Your task to perform on an android device: Show me productivity apps on the Play Store Image 0: 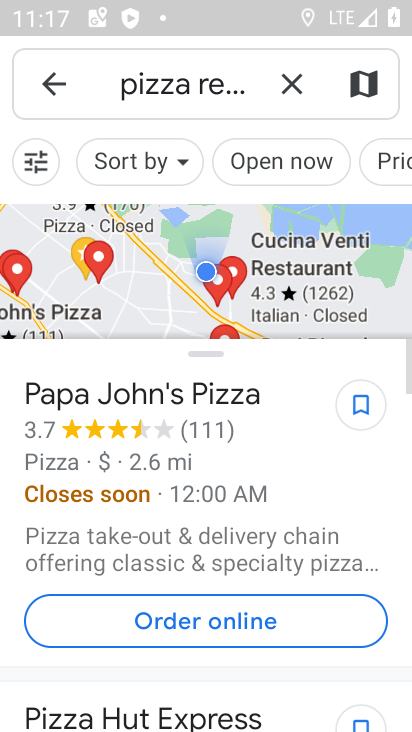
Step 0: press home button
Your task to perform on an android device: Show me productivity apps on the Play Store Image 1: 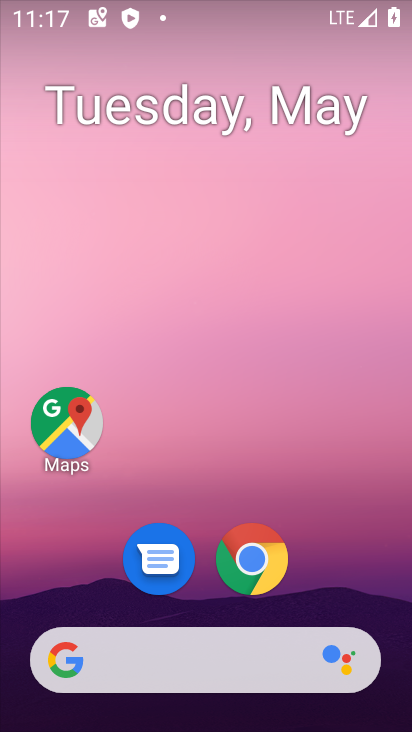
Step 1: drag from (387, 579) to (323, 140)
Your task to perform on an android device: Show me productivity apps on the Play Store Image 2: 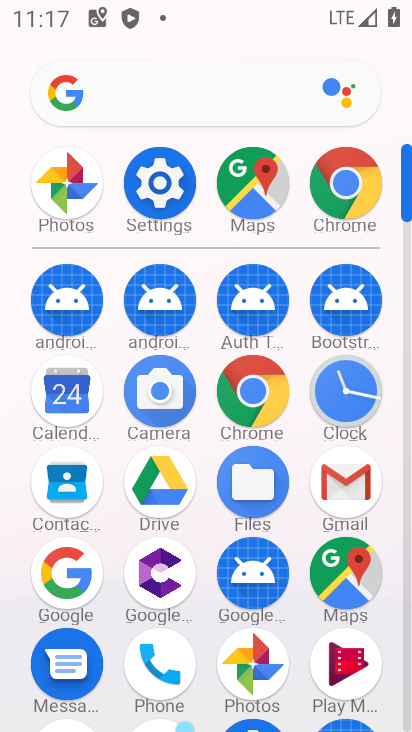
Step 2: drag from (195, 697) to (222, 442)
Your task to perform on an android device: Show me productivity apps on the Play Store Image 3: 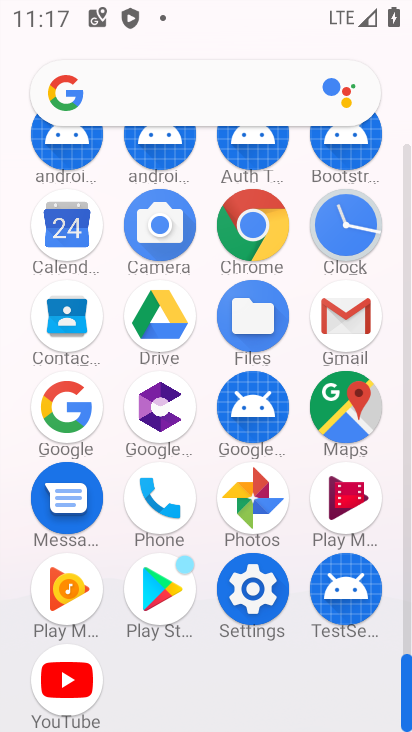
Step 3: click (175, 603)
Your task to perform on an android device: Show me productivity apps on the Play Store Image 4: 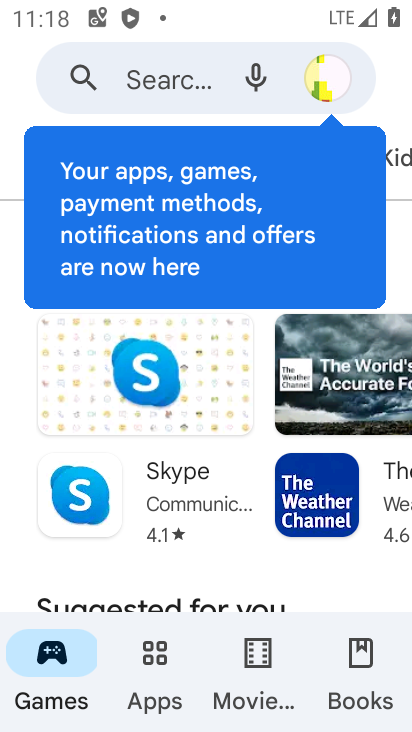
Step 4: click (171, 681)
Your task to perform on an android device: Show me productivity apps on the Play Store Image 5: 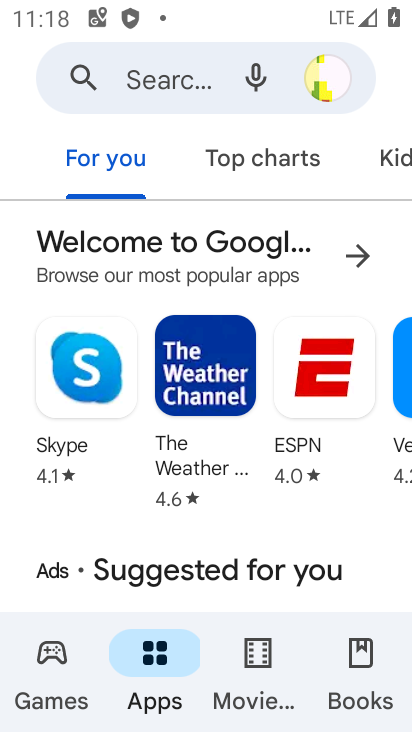
Step 5: drag from (356, 163) to (2, 166)
Your task to perform on an android device: Show me productivity apps on the Play Store Image 6: 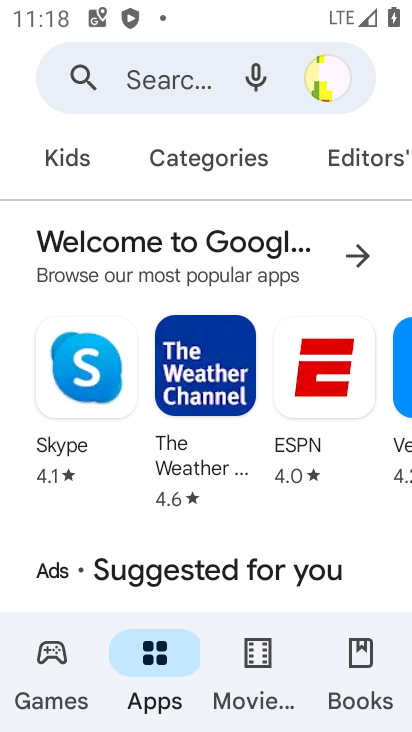
Step 6: click (248, 159)
Your task to perform on an android device: Show me productivity apps on the Play Store Image 7: 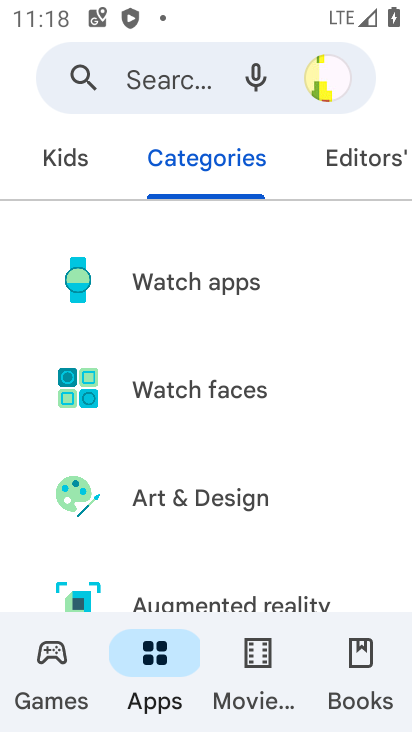
Step 7: drag from (260, 579) to (253, 239)
Your task to perform on an android device: Show me productivity apps on the Play Store Image 8: 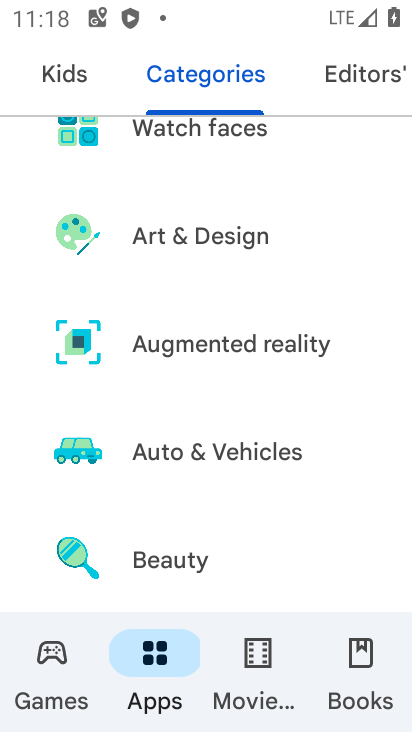
Step 8: drag from (278, 527) to (307, 146)
Your task to perform on an android device: Show me productivity apps on the Play Store Image 9: 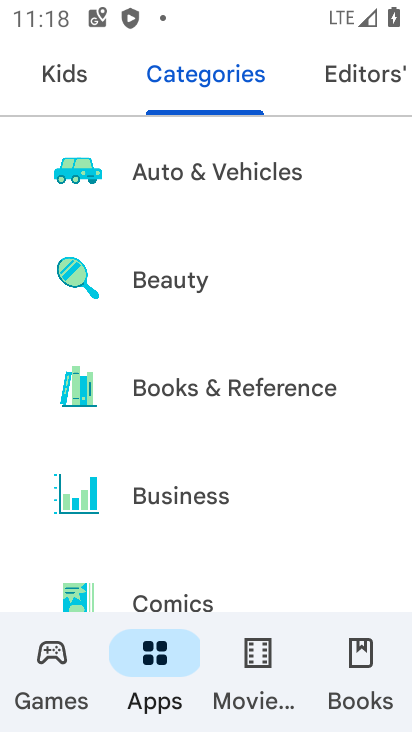
Step 9: drag from (365, 567) to (323, 175)
Your task to perform on an android device: Show me productivity apps on the Play Store Image 10: 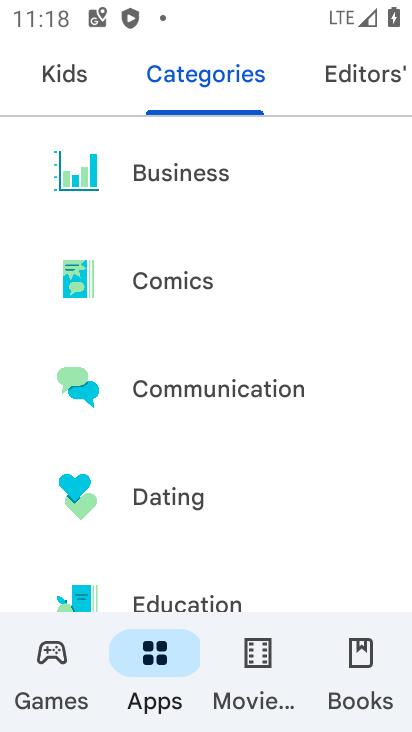
Step 10: drag from (333, 628) to (306, 182)
Your task to perform on an android device: Show me productivity apps on the Play Store Image 11: 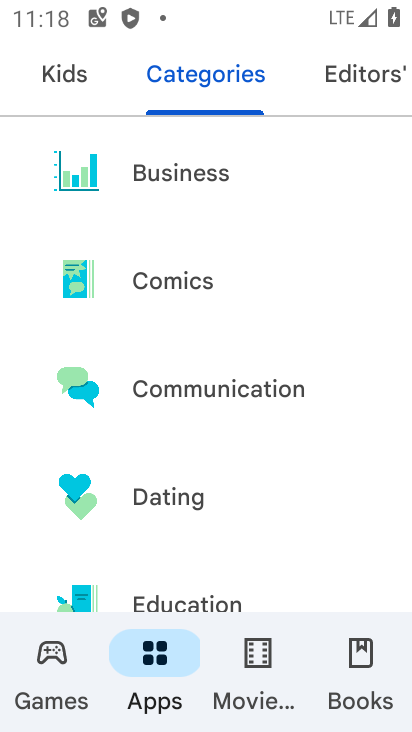
Step 11: drag from (247, 600) to (284, 259)
Your task to perform on an android device: Show me productivity apps on the Play Store Image 12: 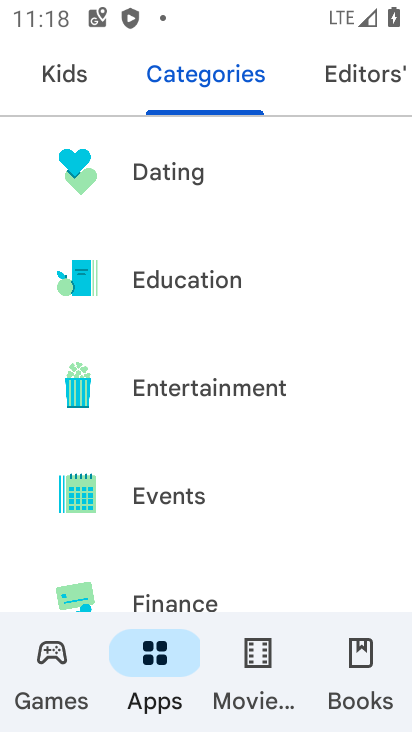
Step 12: drag from (261, 572) to (255, 218)
Your task to perform on an android device: Show me productivity apps on the Play Store Image 13: 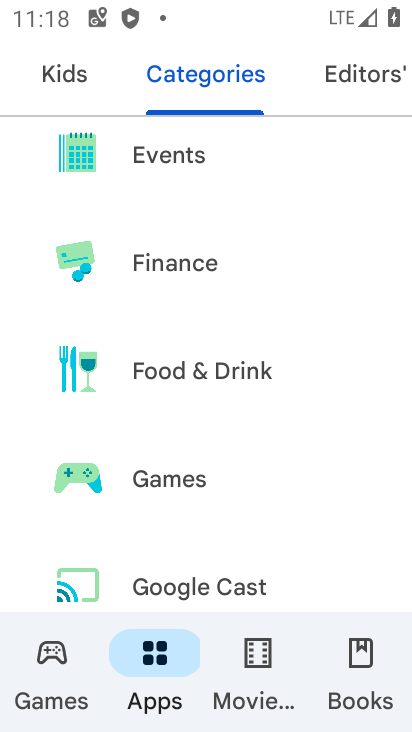
Step 13: drag from (251, 537) to (263, 246)
Your task to perform on an android device: Show me productivity apps on the Play Store Image 14: 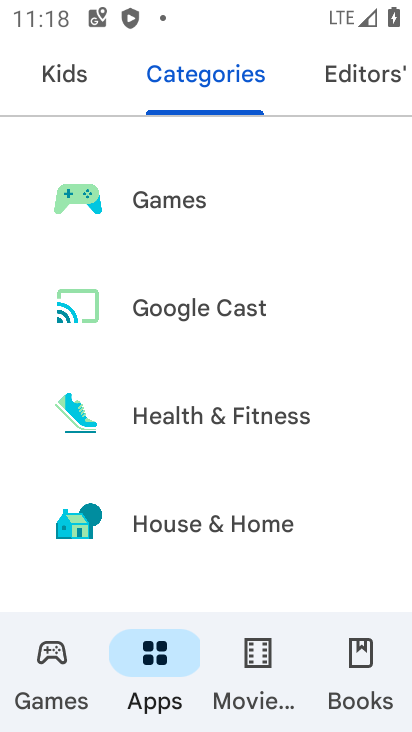
Step 14: drag from (272, 595) to (282, 210)
Your task to perform on an android device: Show me productivity apps on the Play Store Image 15: 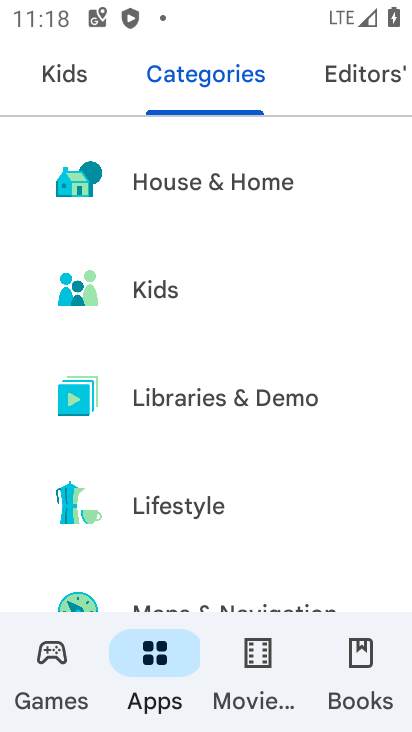
Step 15: drag from (291, 539) to (336, 201)
Your task to perform on an android device: Show me productivity apps on the Play Store Image 16: 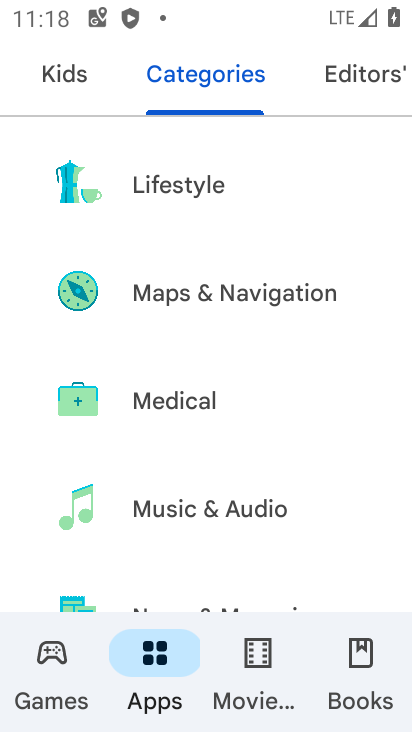
Step 16: drag from (301, 580) to (324, 197)
Your task to perform on an android device: Show me productivity apps on the Play Store Image 17: 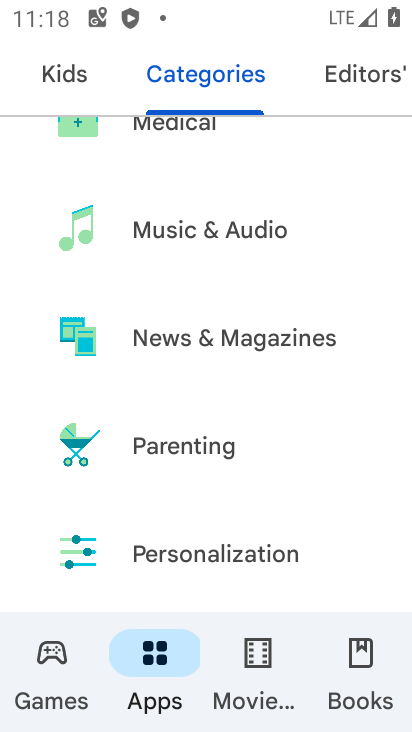
Step 17: drag from (312, 542) to (321, 145)
Your task to perform on an android device: Show me productivity apps on the Play Store Image 18: 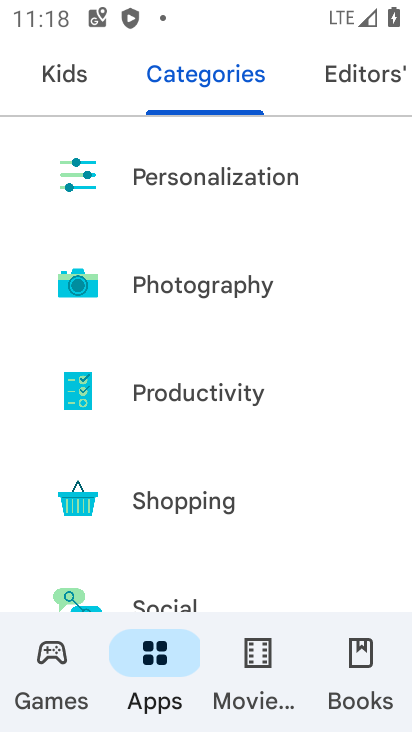
Step 18: click (277, 397)
Your task to perform on an android device: Show me productivity apps on the Play Store Image 19: 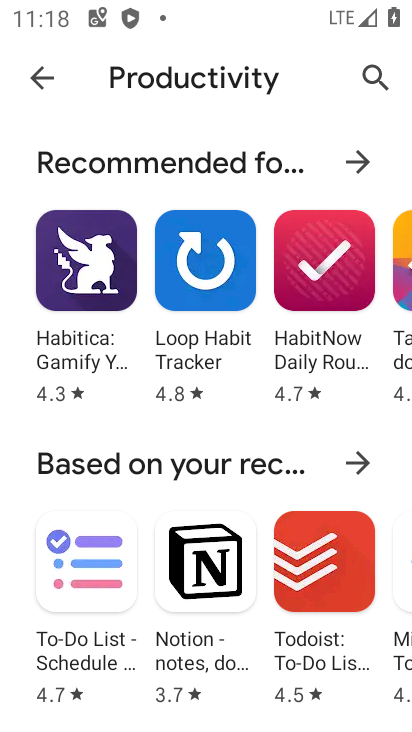
Step 19: task complete